Your task to perform on an android device: Go to Google Image 0: 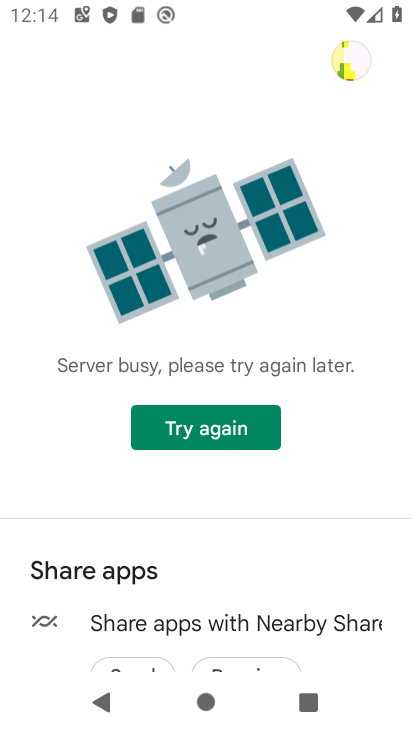
Step 0: press home button
Your task to perform on an android device: Go to Google Image 1: 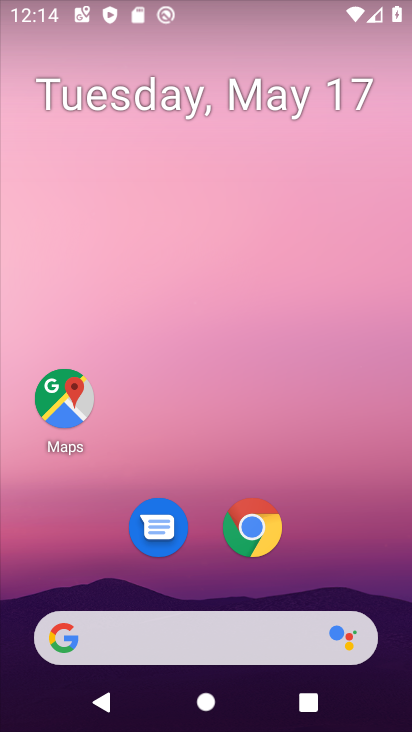
Step 1: drag from (338, 542) to (326, 113)
Your task to perform on an android device: Go to Google Image 2: 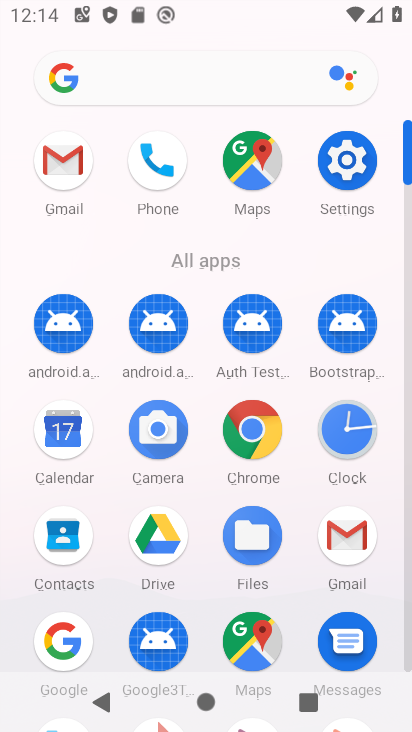
Step 2: click (74, 645)
Your task to perform on an android device: Go to Google Image 3: 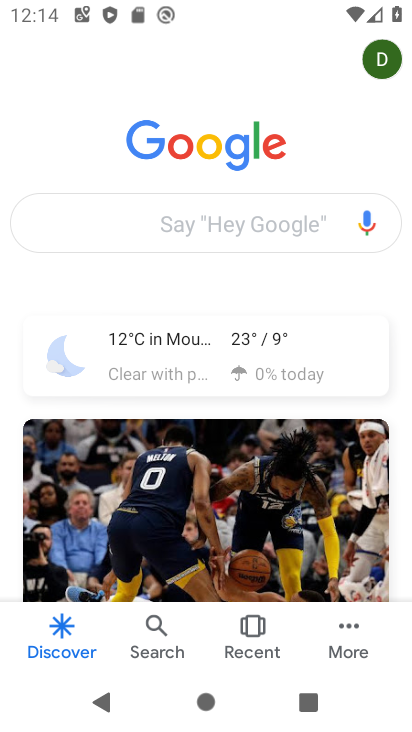
Step 3: task complete